Your task to perform on an android device: change the clock display to analog Image 0: 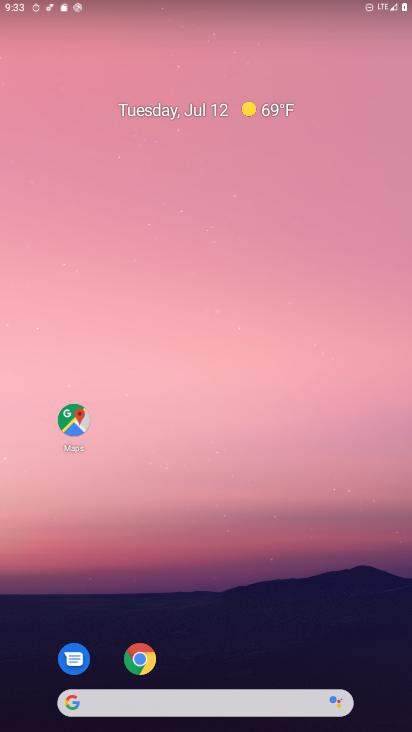
Step 0: drag from (233, 699) to (230, 195)
Your task to perform on an android device: change the clock display to analog Image 1: 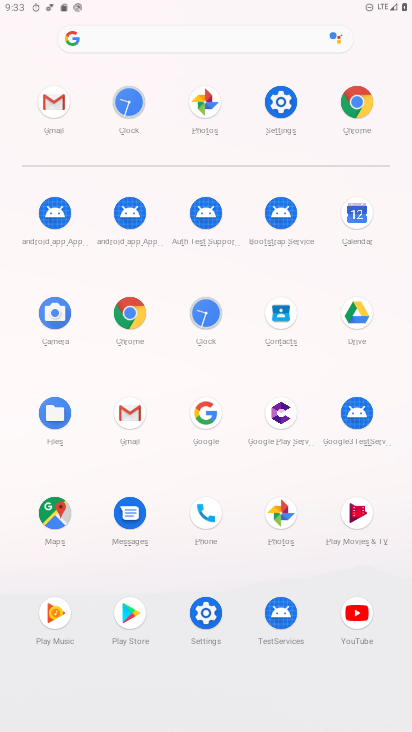
Step 1: click (212, 318)
Your task to perform on an android device: change the clock display to analog Image 2: 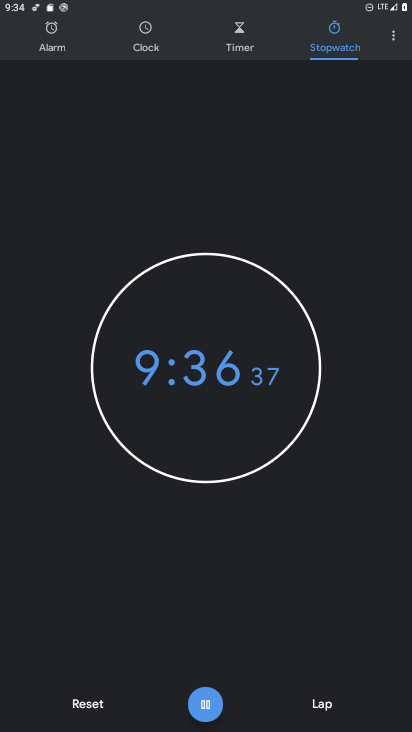
Step 2: click (393, 35)
Your task to perform on an android device: change the clock display to analog Image 3: 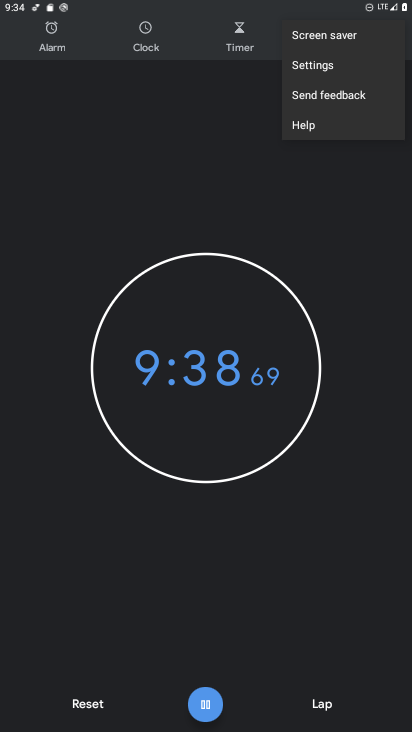
Step 3: click (314, 64)
Your task to perform on an android device: change the clock display to analog Image 4: 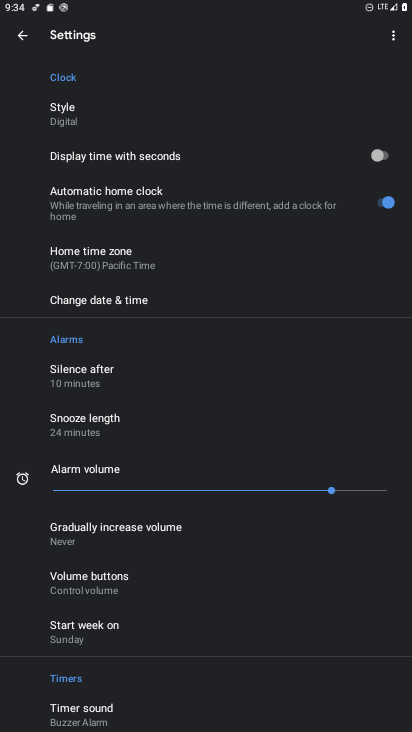
Step 4: click (80, 109)
Your task to perform on an android device: change the clock display to analog Image 5: 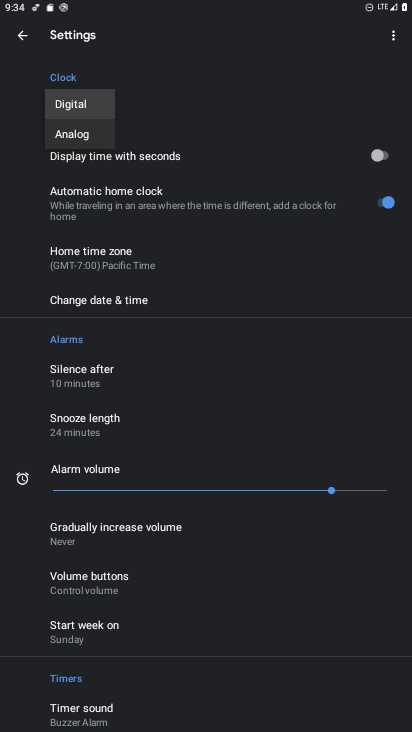
Step 5: click (75, 140)
Your task to perform on an android device: change the clock display to analog Image 6: 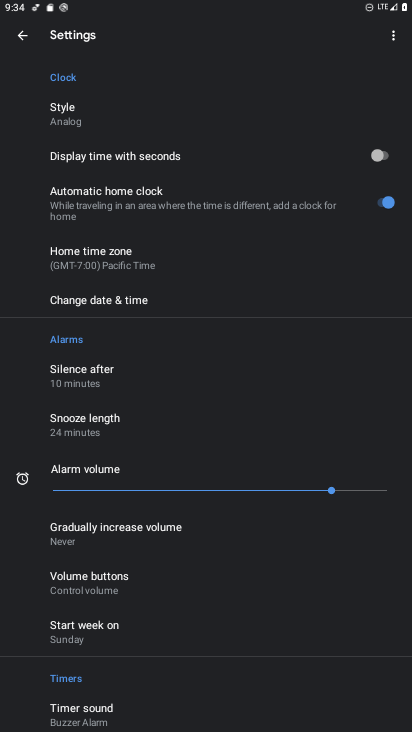
Step 6: task complete